Your task to perform on an android device: Is it going to rain tomorrow? Image 0: 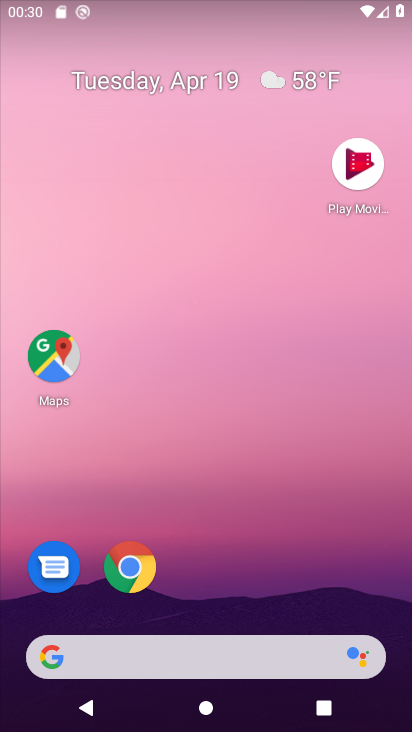
Step 0: drag from (228, 578) to (304, 366)
Your task to perform on an android device: Is it going to rain tomorrow? Image 1: 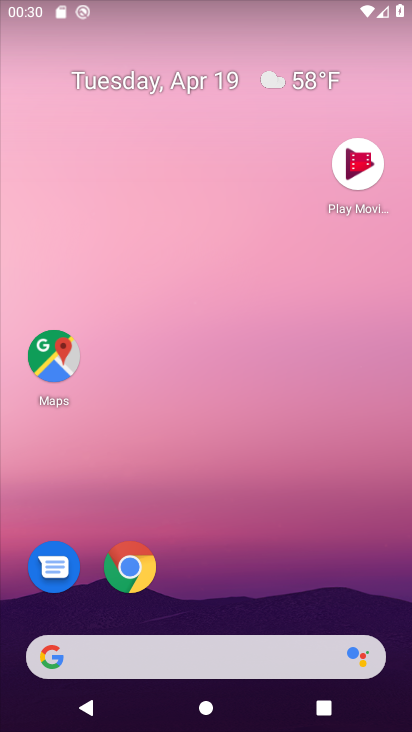
Step 1: drag from (197, 591) to (246, 497)
Your task to perform on an android device: Is it going to rain tomorrow? Image 2: 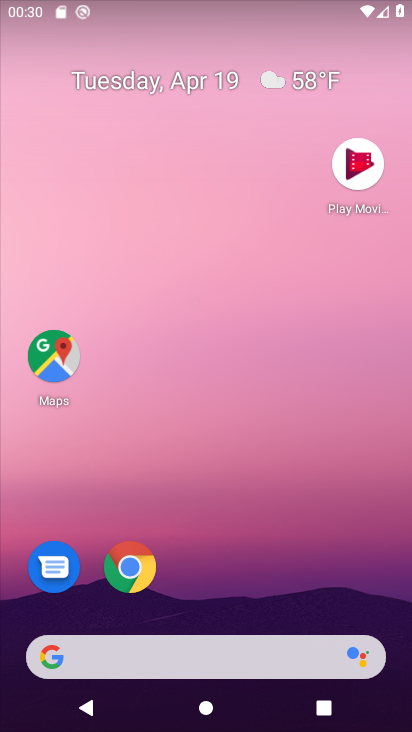
Step 2: drag from (233, 560) to (321, 153)
Your task to perform on an android device: Is it going to rain tomorrow? Image 3: 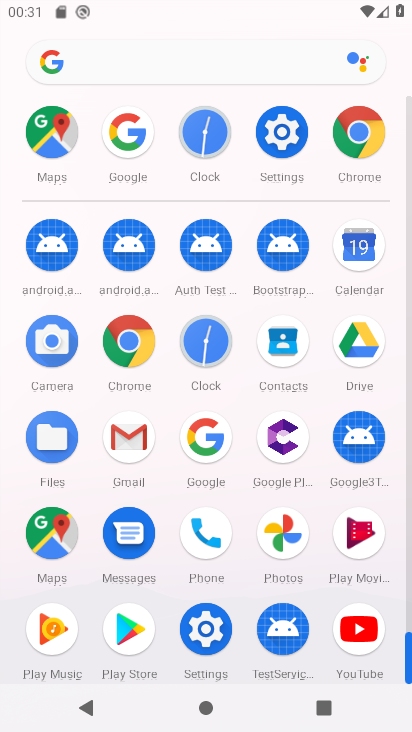
Step 3: drag from (240, 578) to (248, 63)
Your task to perform on an android device: Is it going to rain tomorrow? Image 4: 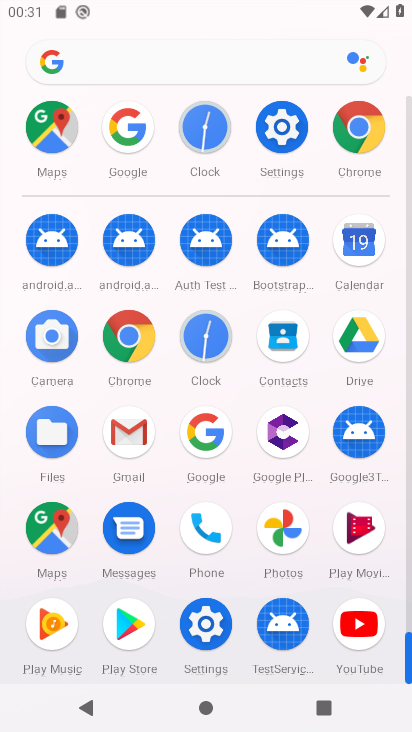
Step 4: click (131, 335)
Your task to perform on an android device: Is it going to rain tomorrow? Image 5: 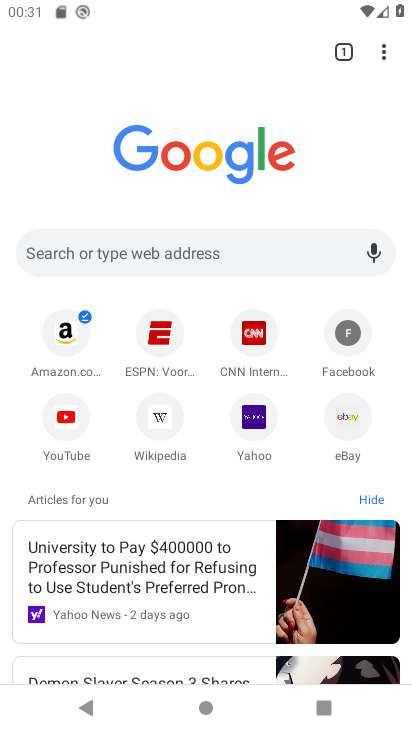
Step 5: click (106, 230)
Your task to perform on an android device: Is it going to rain tomorrow? Image 6: 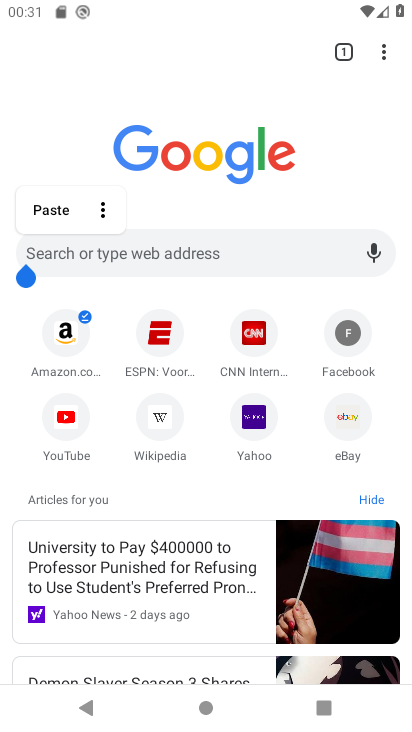
Step 6: click (127, 254)
Your task to perform on an android device: Is it going to rain tomorrow? Image 7: 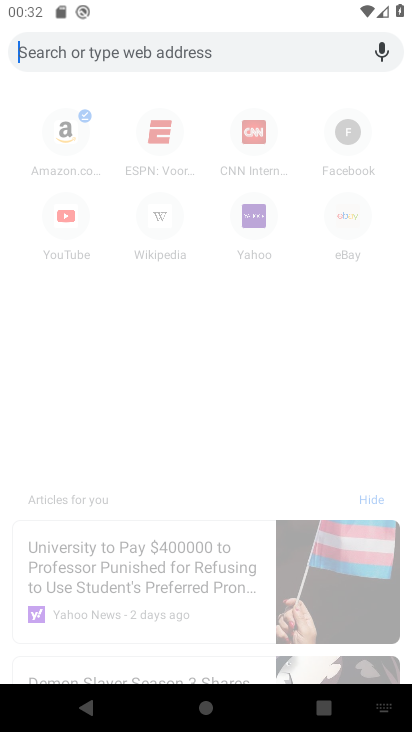
Step 7: type "rain tomorrow"
Your task to perform on an android device: Is it going to rain tomorrow? Image 8: 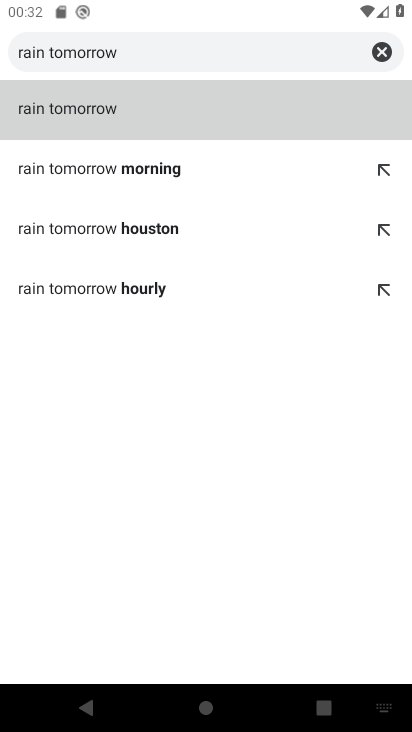
Step 8: click (97, 126)
Your task to perform on an android device: Is it going to rain tomorrow? Image 9: 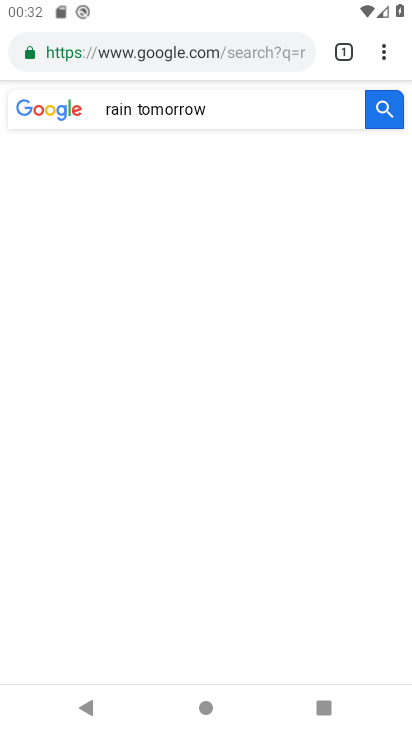
Step 9: click (194, 558)
Your task to perform on an android device: Is it going to rain tomorrow? Image 10: 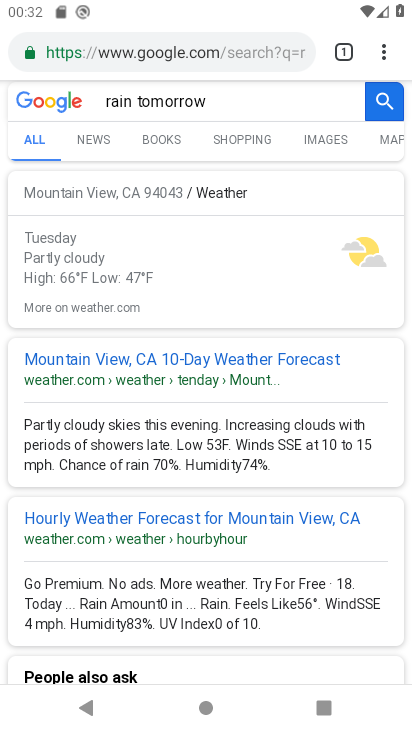
Step 10: task complete